Your task to perform on an android device: Search for custom t-shirts on Etsy. Image 0: 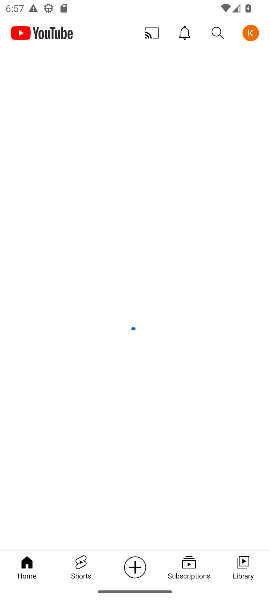
Step 0: press home button
Your task to perform on an android device: Search for custom t-shirts on Etsy. Image 1: 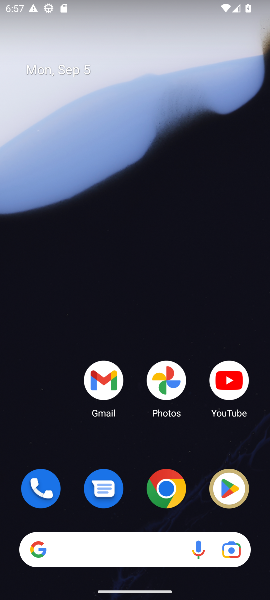
Step 1: click (167, 494)
Your task to perform on an android device: Search for custom t-shirts on Etsy. Image 2: 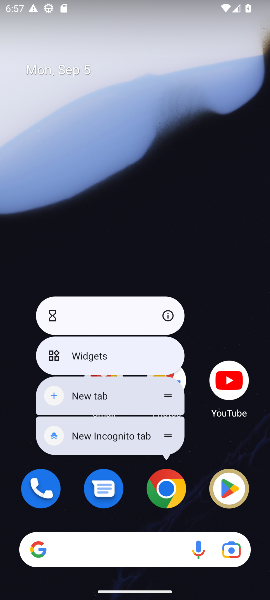
Step 2: click (167, 494)
Your task to perform on an android device: Search for custom t-shirts on Etsy. Image 3: 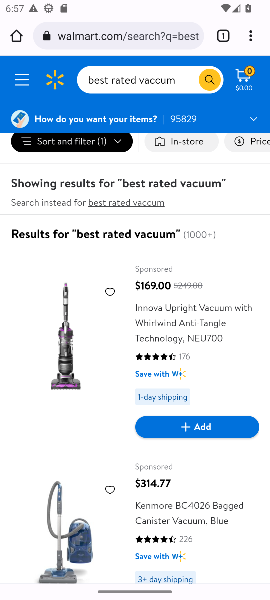
Step 3: click (136, 33)
Your task to perform on an android device: Search for custom t-shirts on Etsy. Image 4: 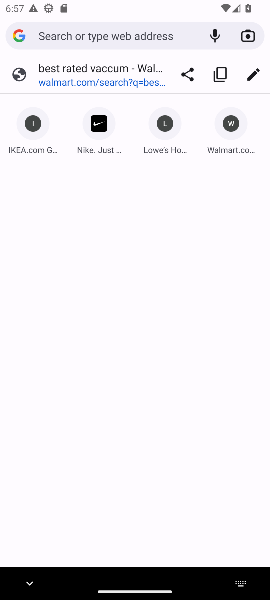
Step 4: type "etsy"
Your task to perform on an android device: Search for custom t-shirts on Etsy. Image 5: 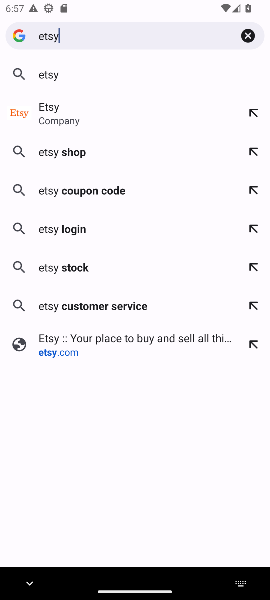
Step 5: press enter
Your task to perform on an android device: Search for custom t-shirts on Etsy. Image 6: 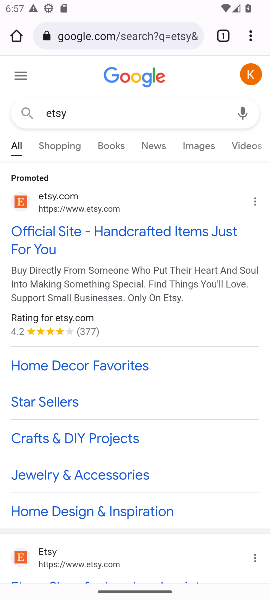
Step 6: click (162, 228)
Your task to perform on an android device: Search for custom t-shirts on Etsy. Image 7: 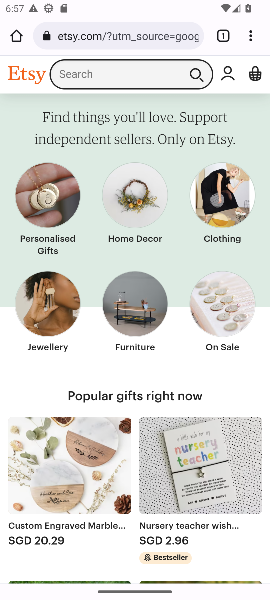
Step 7: click (136, 72)
Your task to perform on an android device: Search for custom t-shirts on Etsy. Image 8: 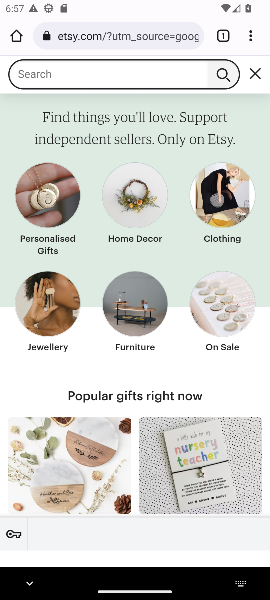
Step 8: type "custom t-shirts"
Your task to perform on an android device: Search for custom t-shirts on Etsy. Image 9: 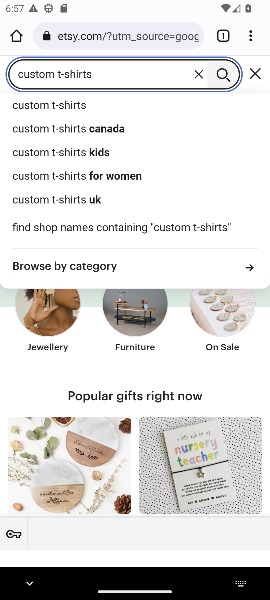
Step 9: press enter
Your task to perform on an android device: Search for custom t-shirts on Etsy. Image 10: 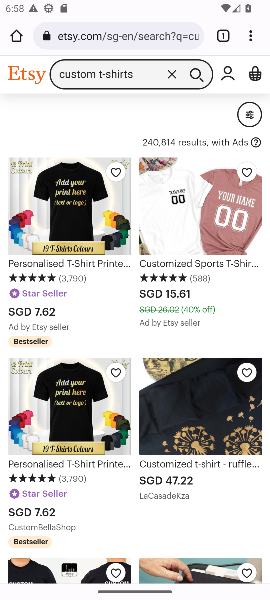
Step 10: drag from (141, 351) to (130, 402)
Your task to perform on an android device: Search for custom t-shirts on Etsy. Image 11: 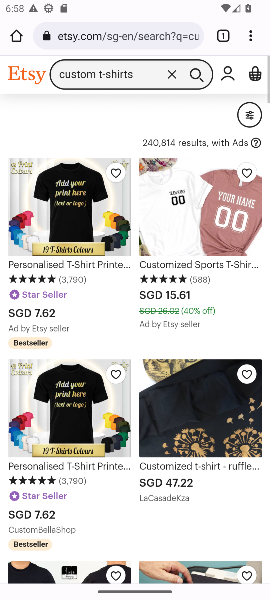
Step 11: drag from (122, 433) to (117, 375)
Your task to perform on an android device: Search for custom t-shirts on Etsy. Image 12: 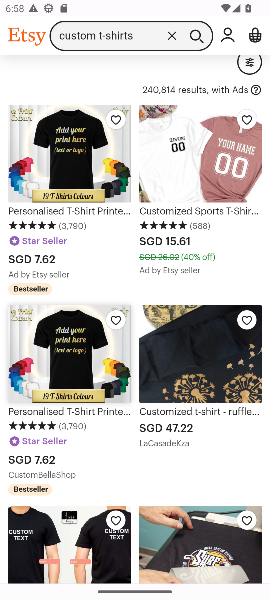
Step 12: drag from (194, 416) to (187, 214)
Your task to perform on an android device: Search for custom t-shirts on Etsy. Image 13: 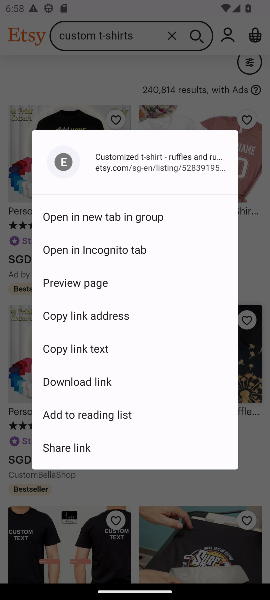
Step 13: click (244, 273)
Your task to perform on an android device: Search for custom t-shirts on Etsy. Image 14: 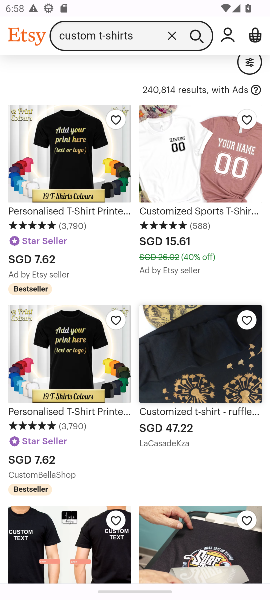
Step 14: task complete